Your task to perform on an android device: allow notifications from all sites in the chrome app Image 0: 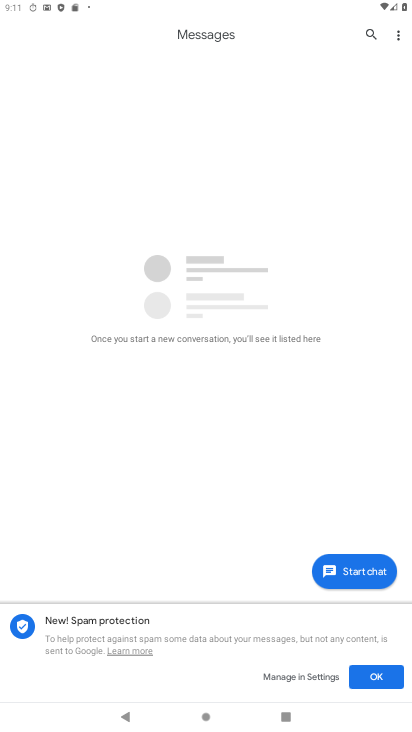
Step 0: press back button
Your task to perform on an android device: allow notifications from all sites in the chrome app Image 1: 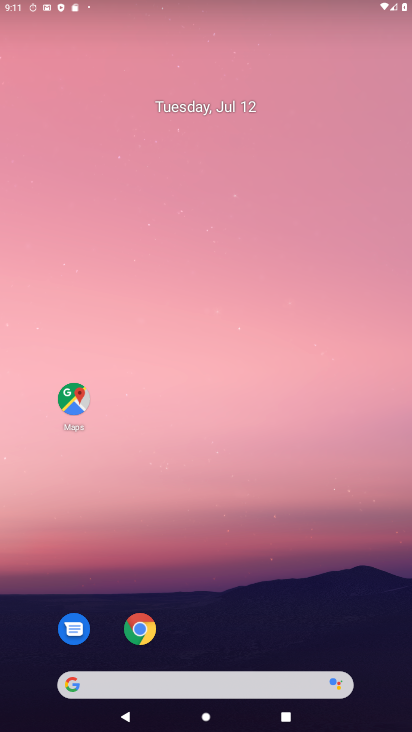
Step 1: drag from (254, 578) to (216, 59)
Your task to perform on an android device: allow notifications from all sites in the chrome app Image 2: 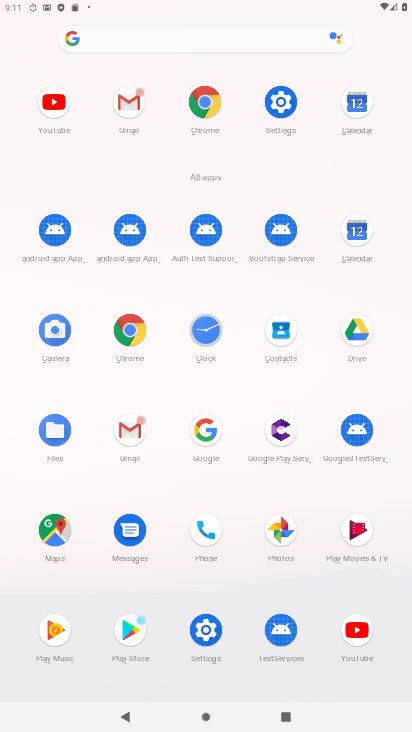
Step 2: click (210, 96)
Your task to perform on an android device: allow notifications from all sites in the chrome app Image 3: 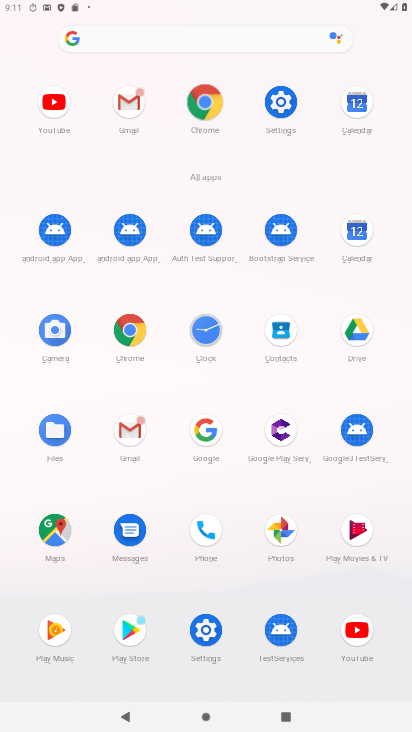
Step 3: click (210, 96)
Your task to perform on an android device: allow notifications from all sites in the chrome app Image 4: 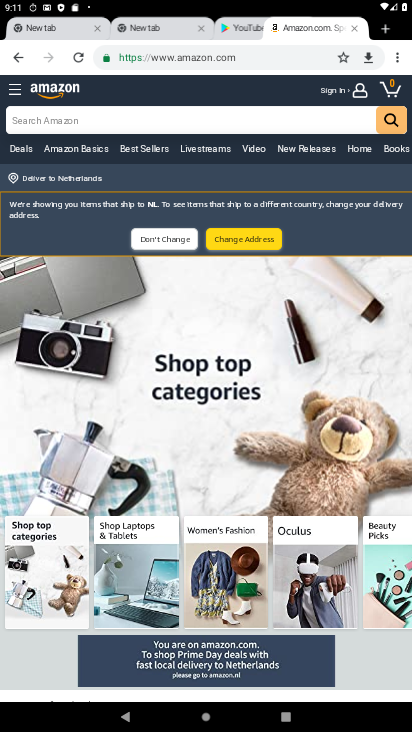
Step 4: drag from (394, 58) to (264, 382)
Your task to perform on an android device: allow notifications from all sites in the chrome app Image 5: 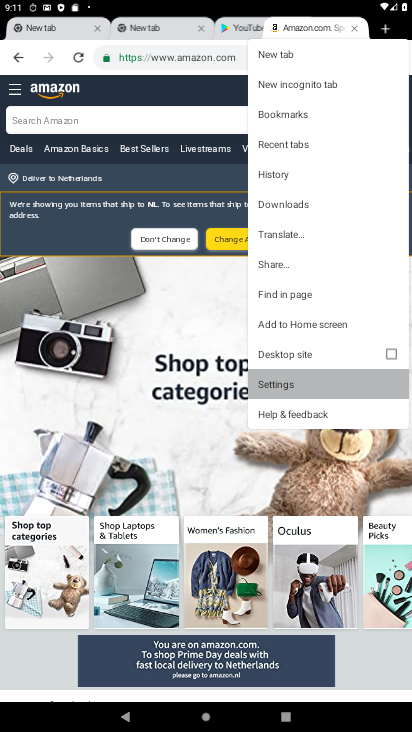
Step 5: click (264, 382)
Your task to perform on an android device: allow notifications from all sites in the chrome app Image 6: 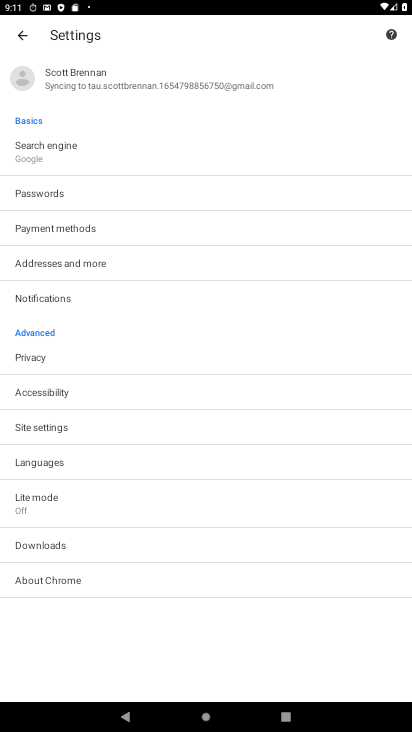
Step 6: click (35, 427)
Your task to perform on an android device: allow notifications from all sites in the chrome app Image 7: 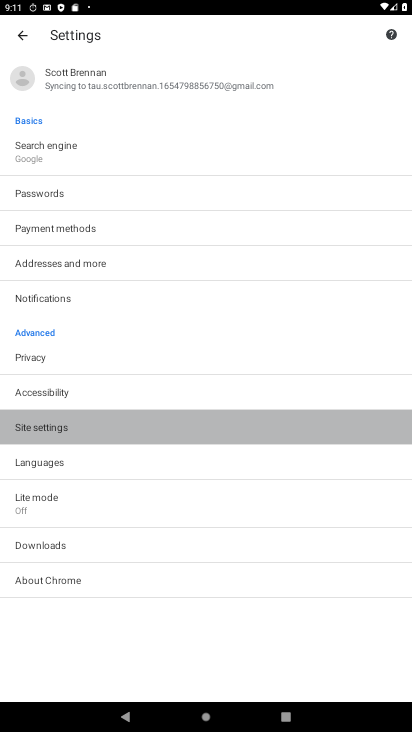
Step 7: click (35, 427)
Your task to perform on an android device: allow notifications from all sites in the chrome app Image 8: 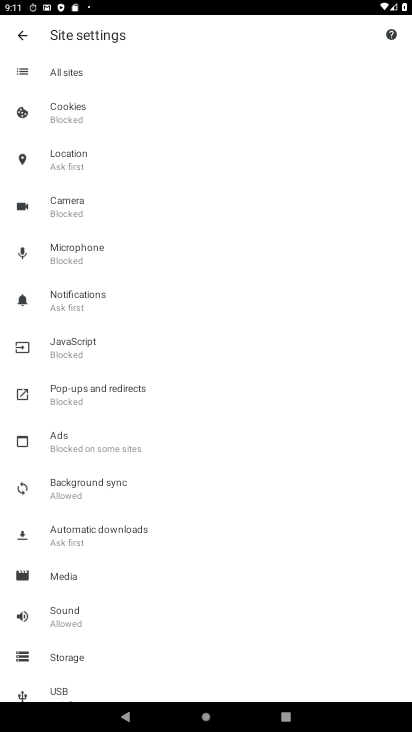
Step 8: click (55, 288)
Your task to perform on an android device: allow notifications from all sites in the chrome app Image 9: 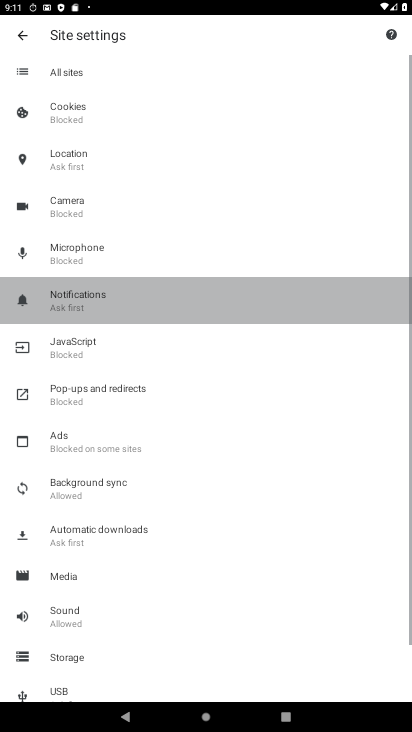
Step 9: click (69, 294)
Your task to perform on an android device: allow notifications from all sites in the chrome app Image 10: 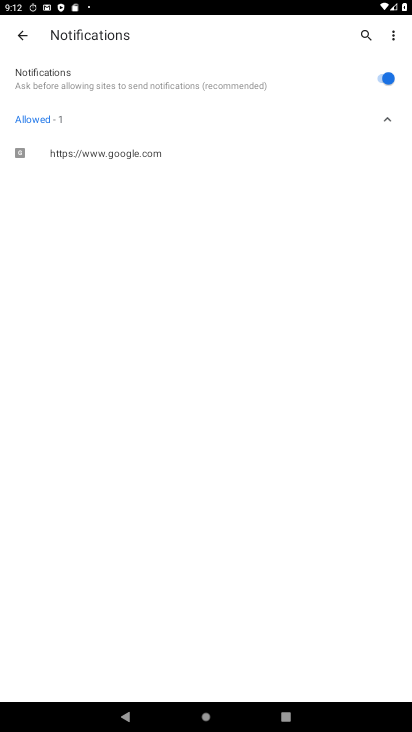
Step 10: task complete